Your task to perform on an android device: Go to accessibility settings Image 0: 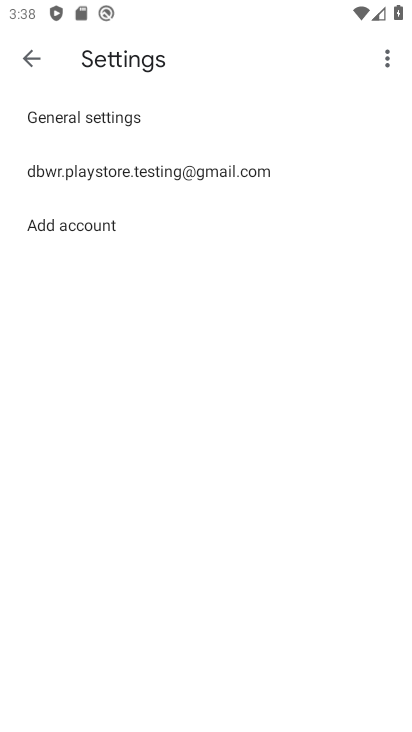
Step 0: press home button
Your task to perform on an android device: Go to accessibility settings Image 1: 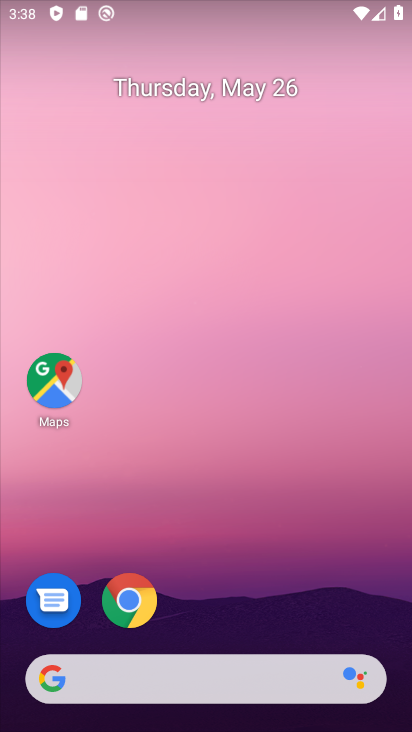
Step 1: drag from (230, 584) to (284, 10)
Your task to perform on an android device: Go to accessibility settings Image 2: 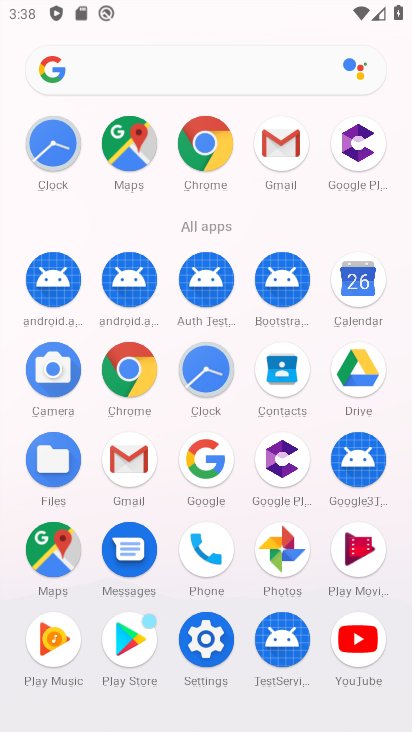
Step 2: drag from (173, 517) to (213, 265)
Your task to perform on an android device: Go to accessibility settings Image 3: 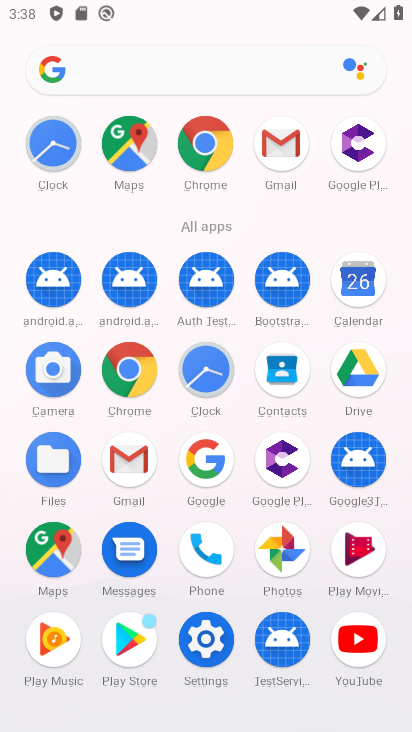
Step 3: click (215, 651)
Your task to perform on an android device: Go to accessibility settings Image 4: 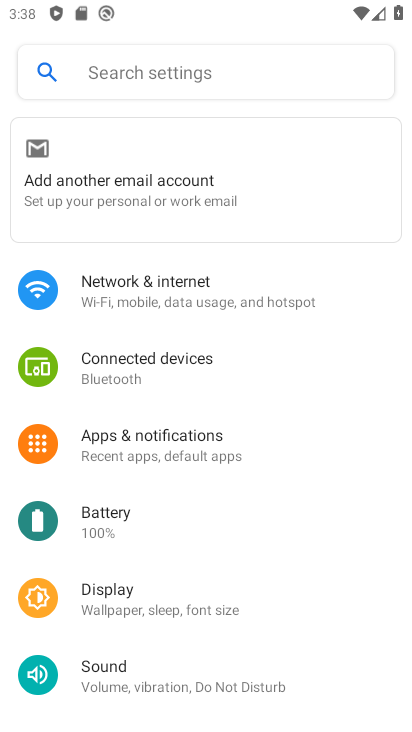
Step 4: drag from (186, 636) to (224, 231)
Your task to perform on an android device: Go to accessibility settings Image 5: 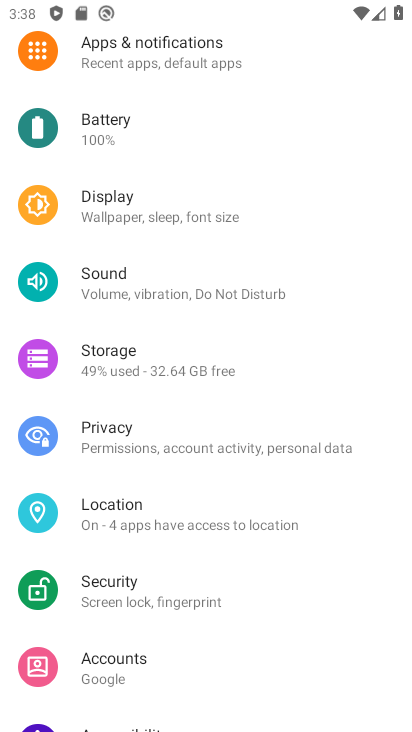
Step 5: drag from (148, 563) to (197, 298)
Your task to perform on an android device: Go to accessibility settings Image 6: 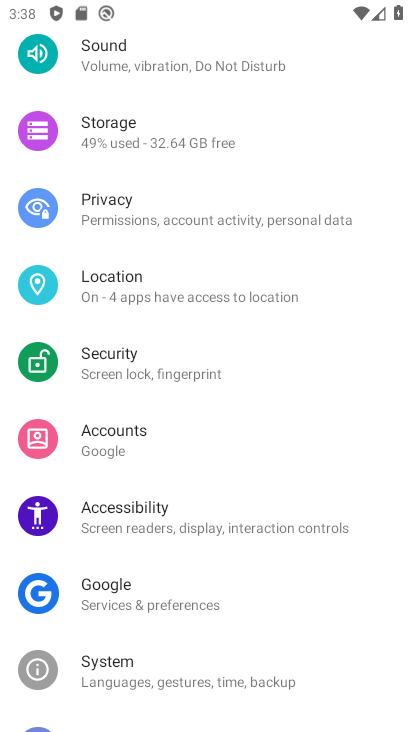
Step 6: click (147, 516)
Your task to perform on an android device: Go to accessibility settings Image 7: 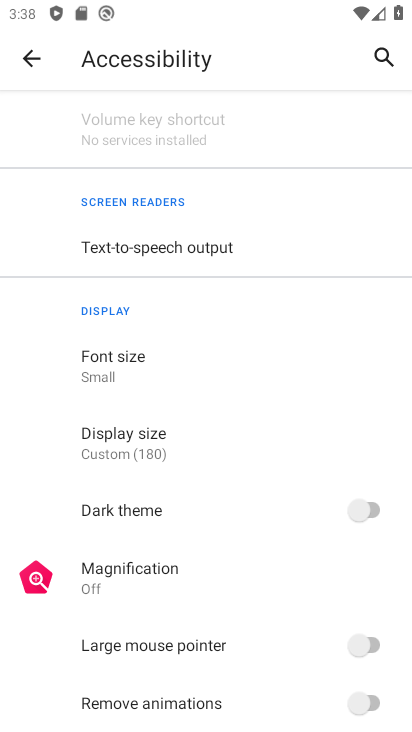
Step 7: task complete